Your task to perform on an android device: Open CNN.com Image 0: 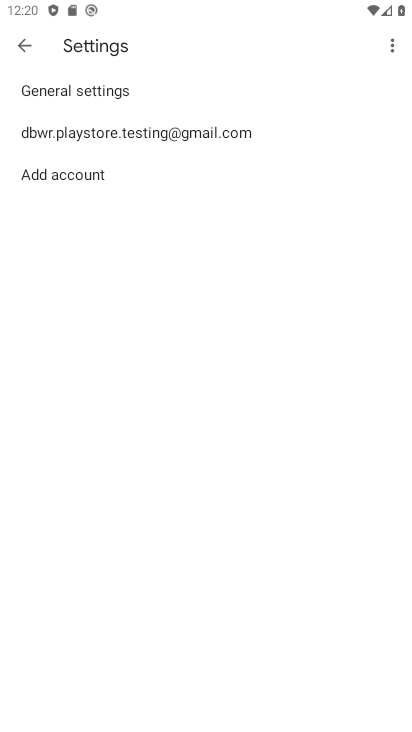
Step 0: press home button
Your task to perform on an android device: Open CNN.com Image 1: 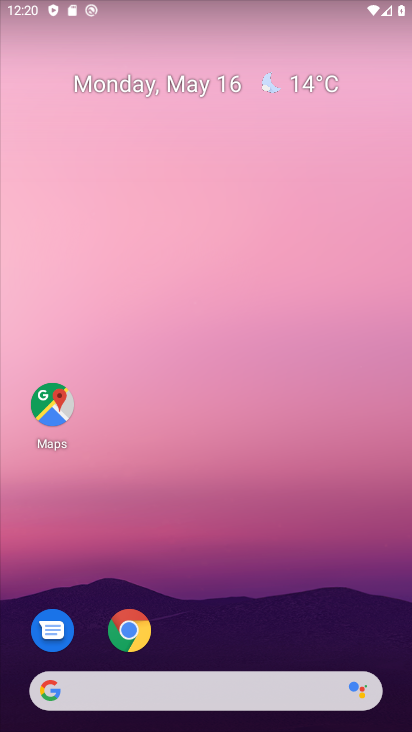
Step 1: click (124, 632)
Your task to perform on an android device: Open CNN.com Image 2: 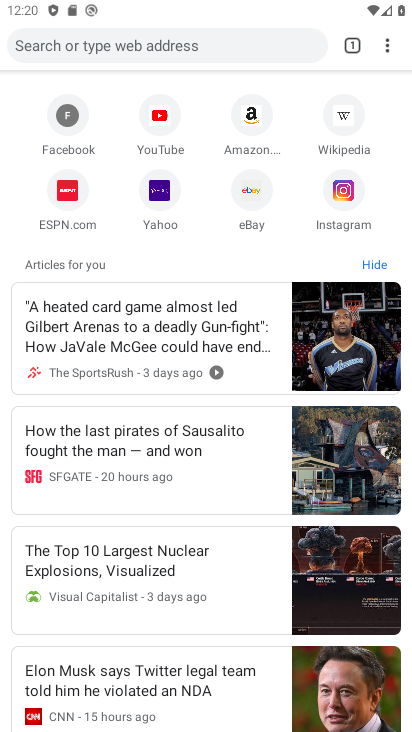
Step 2: click (157, 39)
Your task to perform on an android device: Open CNN.com Image 3: 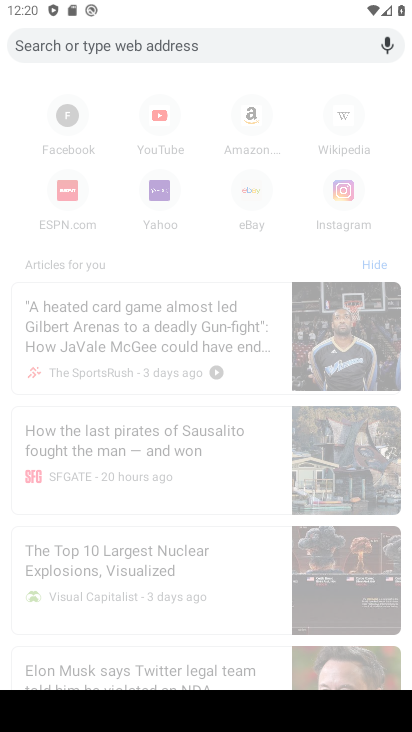
Step 3: type "cnn.com"
Your task to perform on an android device: Open CNN.com Image 4: 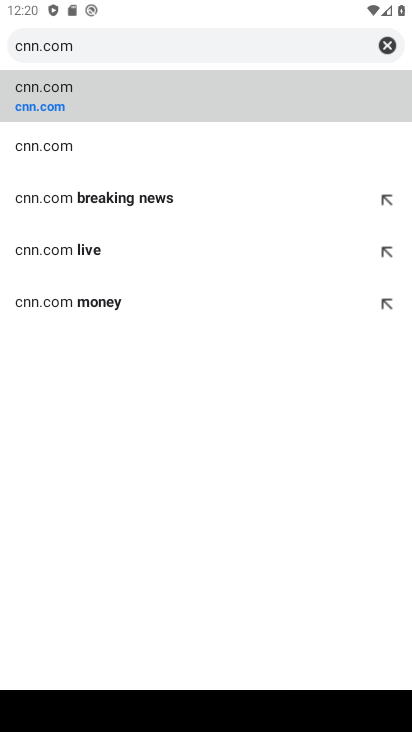
Step 4: click (134, 81)
Your task to perform on an android device: Open CNN.com Image 5: 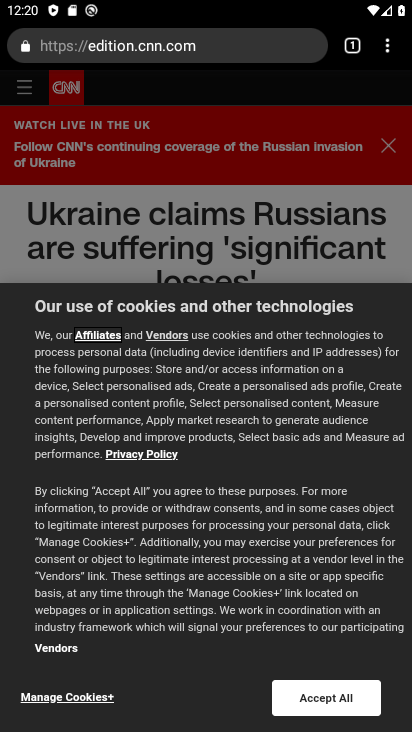
Step 5: task complete